Your task to perform on an android device: Open Google Maps Image 0: 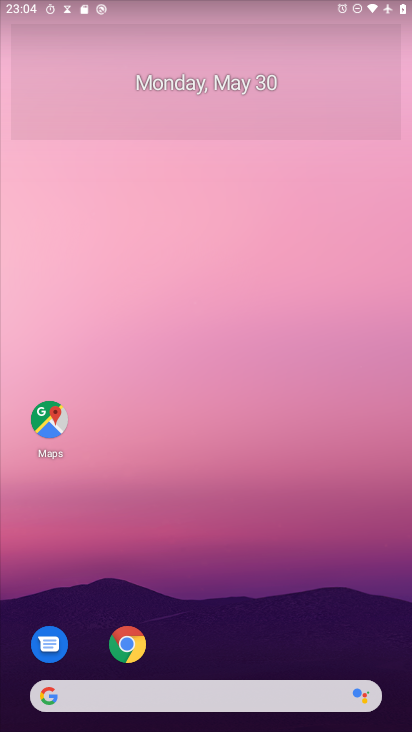
Step 0: click (53, 423)
Your task to perform on an android device: Open Google Maps Image 1: 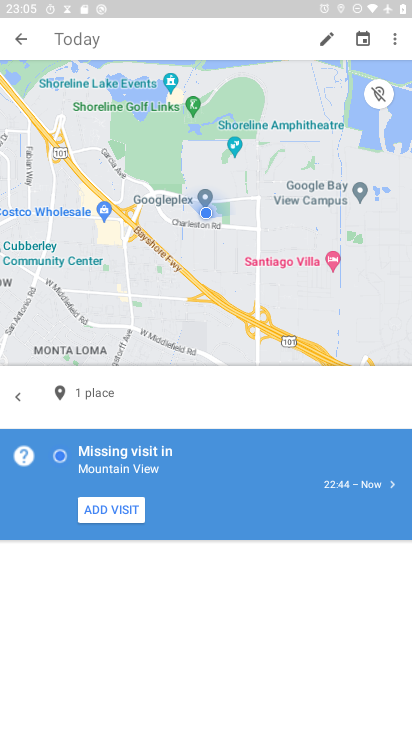
Step 1: task complete